Your task to perform on an android device: Open Reddit.com Image 0: 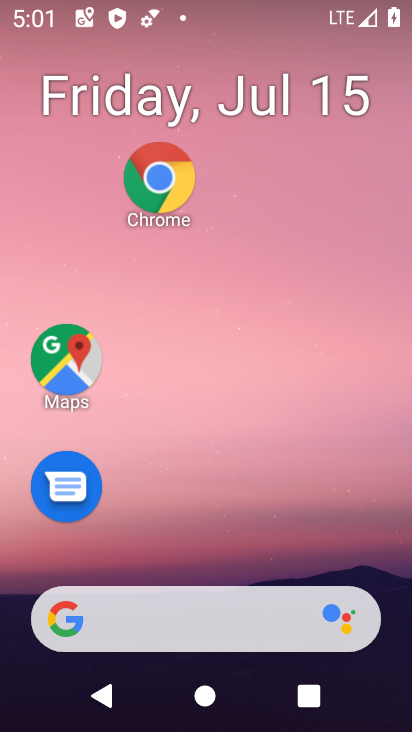
Step 0: click (164, 180)
Your task to perform on an android device: Open Reddit.com Image 1: 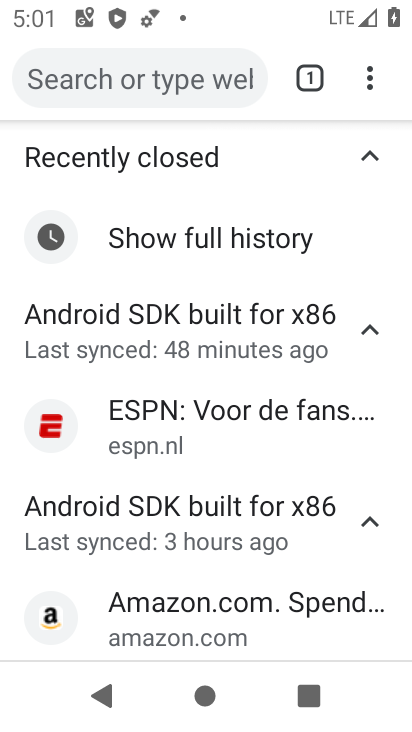
Step 1: click (165, 89)
Your task to perform on an android device: Open Reddit.com Image 2: 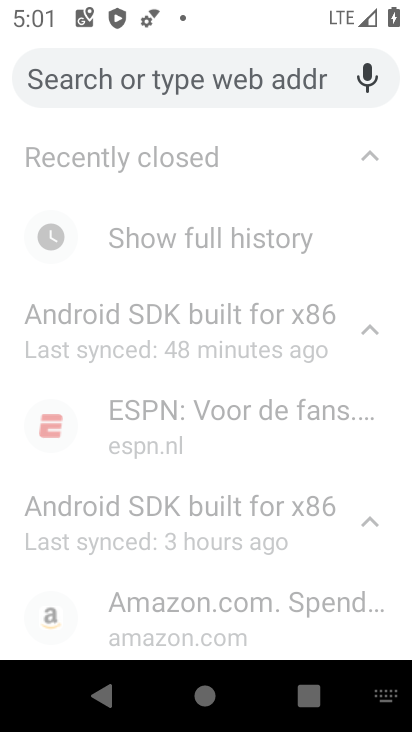
Step 2: type "www.reddit.com"
Your task to perform on an android device: Open Reddit.com Image 3: 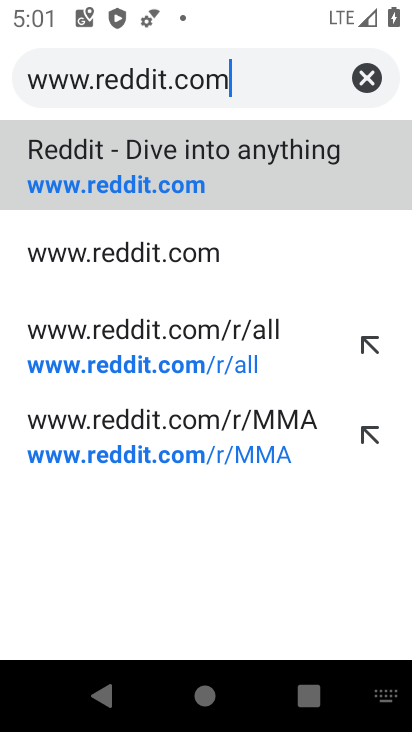
Step 3: click (137, 162)
Your task to perform on an android device: Open Reddit.com Image 4: 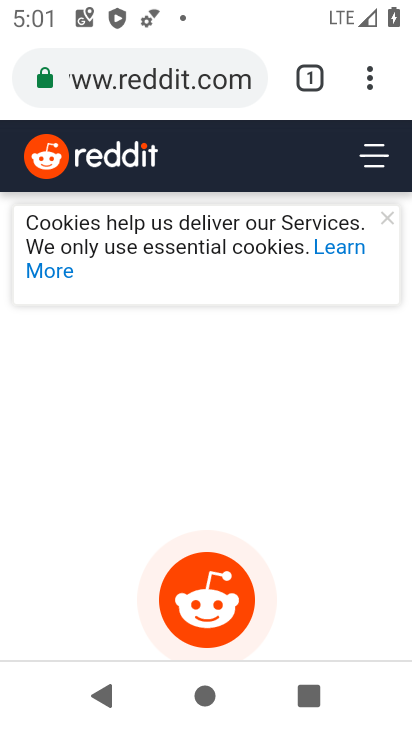
Step 4: task complete